Your task to perform on an android device: search for starred emails in the gmail app Image 0: 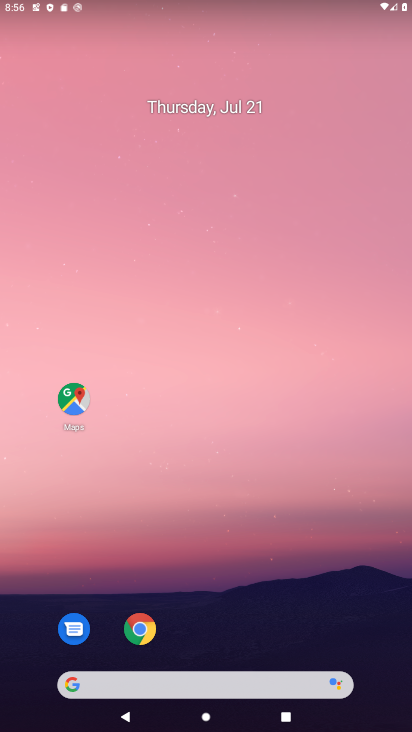
Step 0: drag from (199, 626) to (171, 94)
Your task to perform on an android device: search for starred emails in the gmail app Image 1: 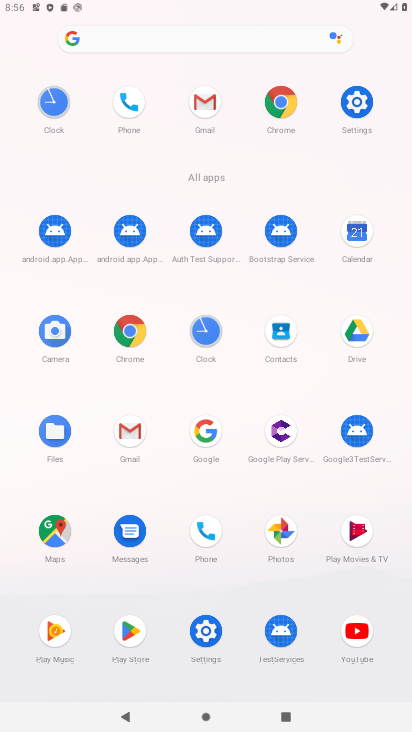
Step 1: click (195, 91)
Your task to perform on an android device: search for starred emails in the gmail app Image 2: 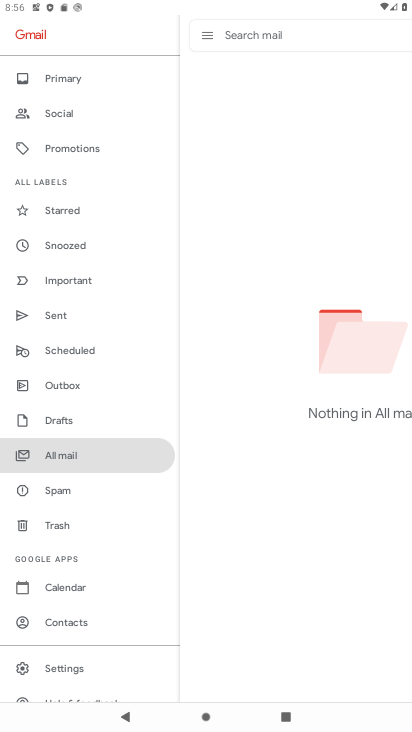
Step 2: click (72, 223)
Your task to perform on an android device: search for starred emails in the gmail app Image 3: 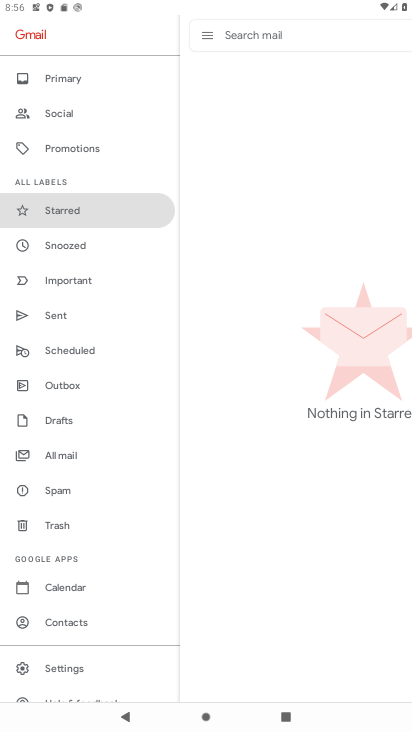
Step 3: task complete